Your task to perform on an android device: Clear all items from cart on target. Image 0: 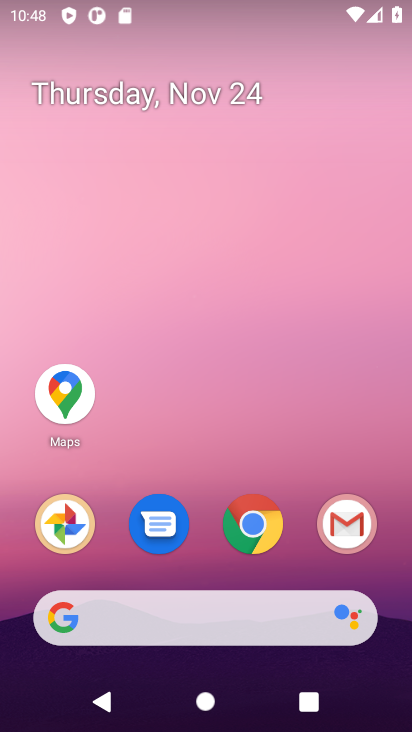
Step 0: click (251, 535)
Your task to perform on an android device: Clear all items from cart on target. Image 1: 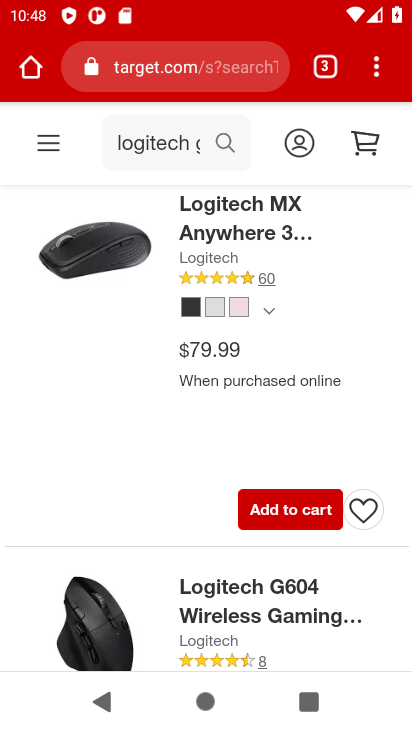
Step 1: click (363, 144)
Your task to perform on an android device: Clear all items from cart on target. Image 2: 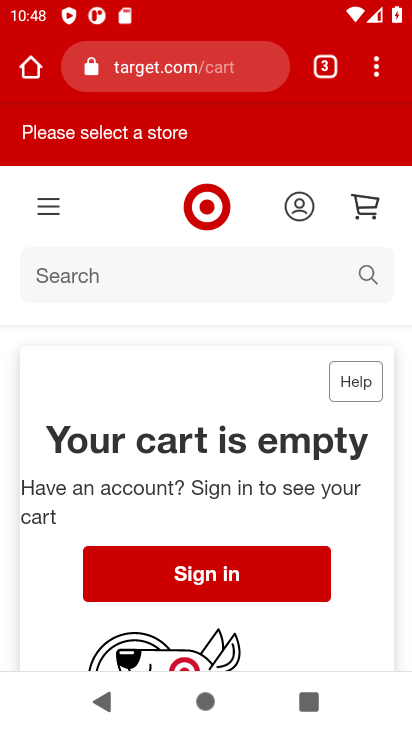
Step 2: task complete